Your task to perform on an android device: Go to Yahoo.com Image 0: 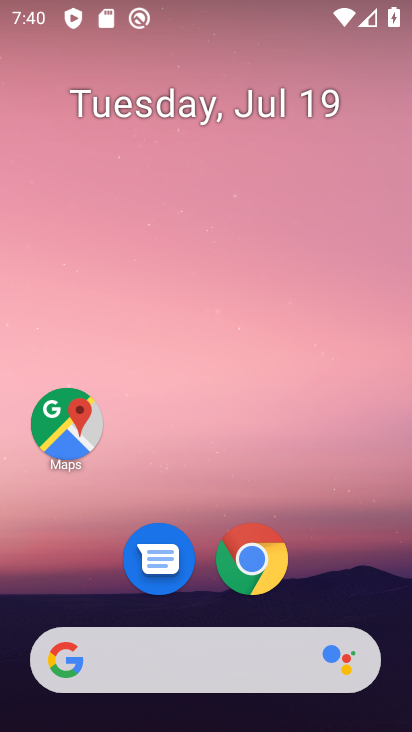
Step 0: click (235, 560)
Your task to perform on an android device: Go to Yahoo.com Image 1: 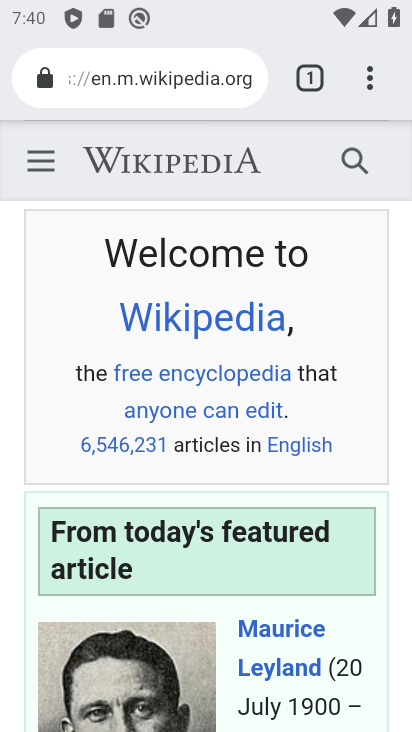
Step 1: click (310, 78)
Your task to perform on an android device: Go to Yahoo.com Image 2: 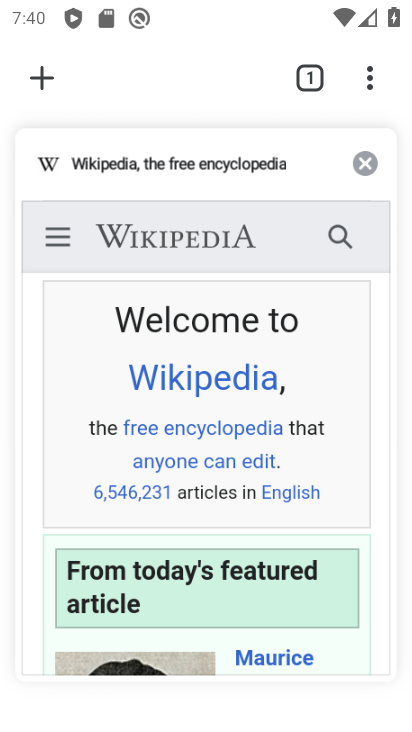
Step 2: click (45, 80)
Your task to perform on an android device: Go to Yahoo.com Image 3: 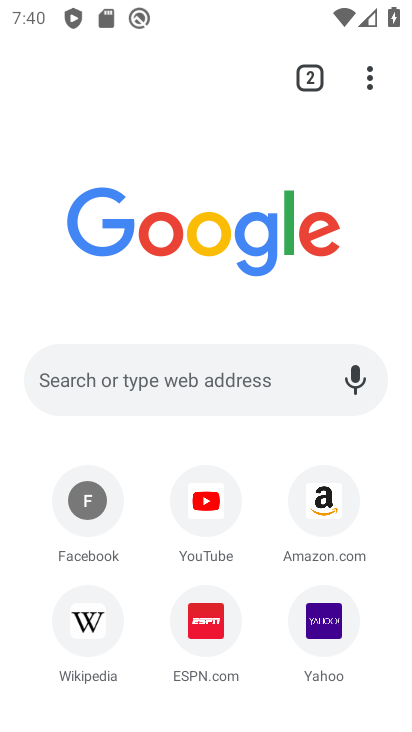
Step 3: click (318, 633)
Your task to perform on an android device: Go to Yahoo.com Image 4: 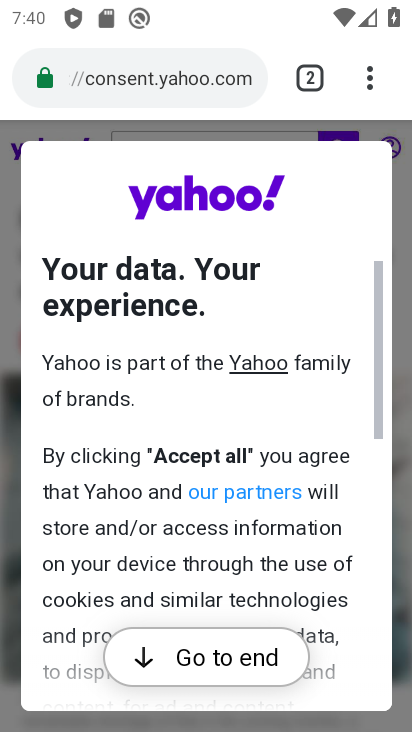
Step 4: task complete